Your task to perform on an android device: Open location settings Image 0: 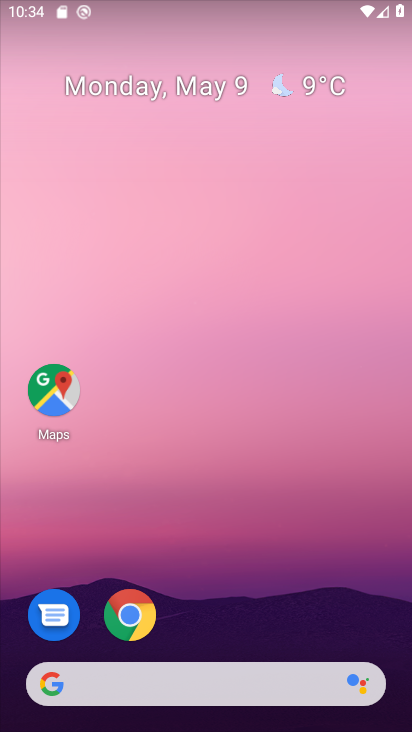
Step 0: drag from (196, 607) to (240, 91)
Your task to perform on an android device: Open location settings Image 1: 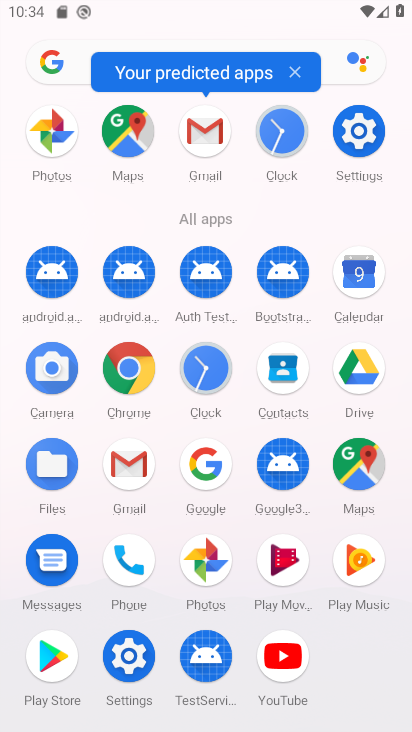
Step 1: click (365, 126)
Your task to perform on an android device: Open location settings Image 2: 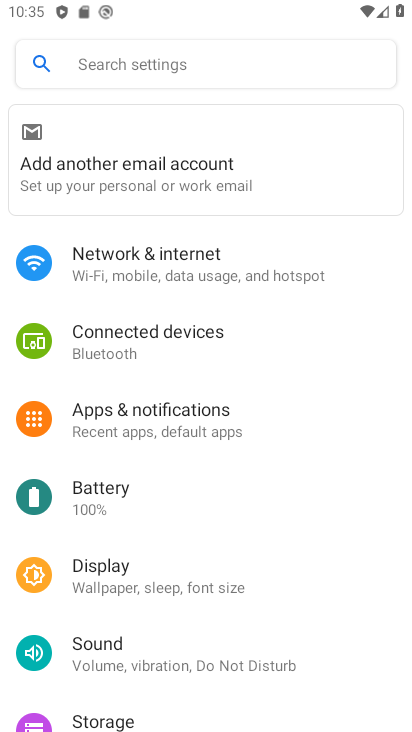
Step 2: drag from (154, 530) to (189, 327)
Your task to perform on an android device: Open location settings Image 3: 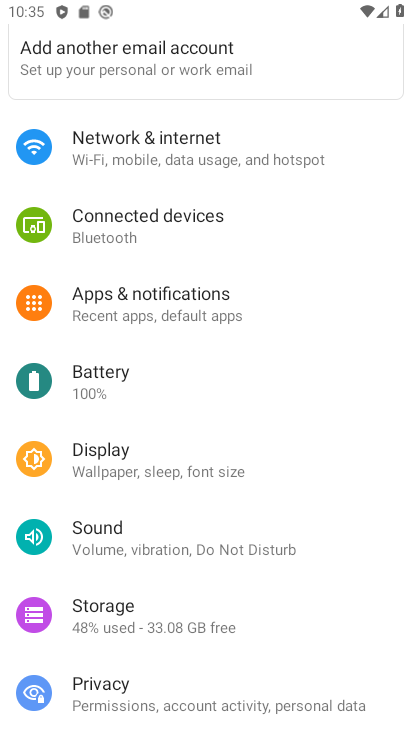
Step 3: drag from (152, 592) to (204, 262)
Your task to perform on an android device: Open location settings Image 4: 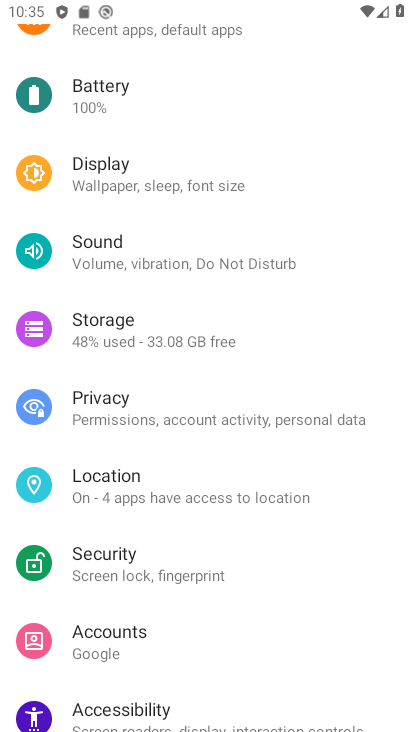
Step 4: click (154, 480)
Your task to perform on an android device: Open location settings Image 5: 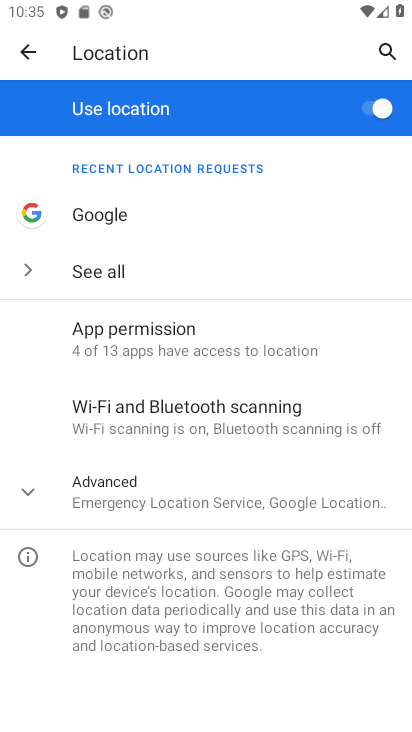
Step 5: task complete